Your task to perform on an android device: Go to sound settings Image 0: 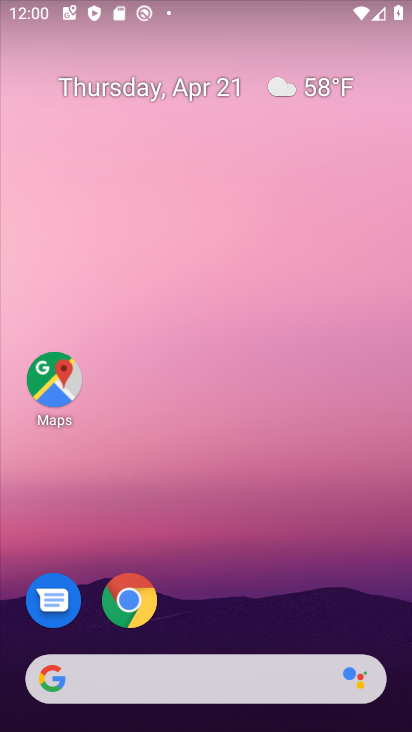
Step 0: drag from (200, 642) to (171, 47)
Your task to perform on an android device: Go to sound settings Image 1: 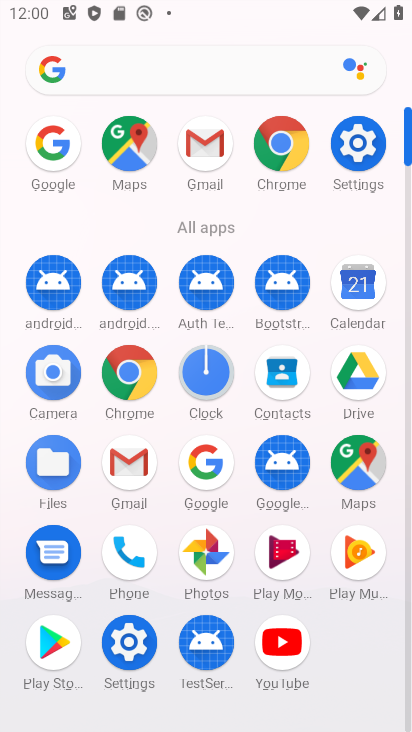
Step 1: click (349, 148)
Your task to perform on an android device: Go to sound settings Image 2: 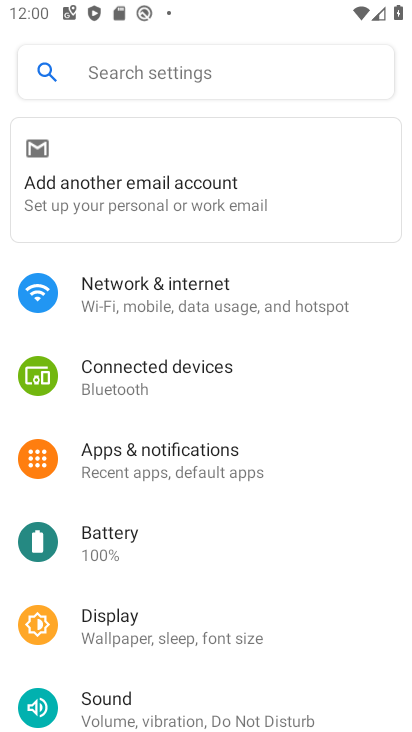
Step 2: click (150, 707)
Your task to perform on an android device: Go to sound settings Image 3: 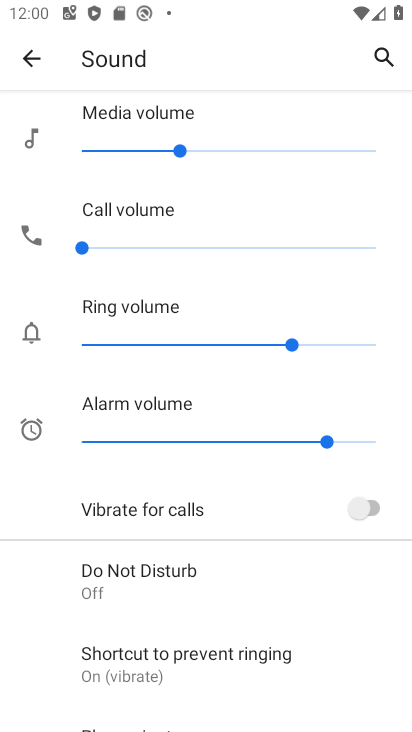
Step 3: drag from (198, 621) to (132, 187)
Your task to perform on an android device: Go to sound settings Image 4: 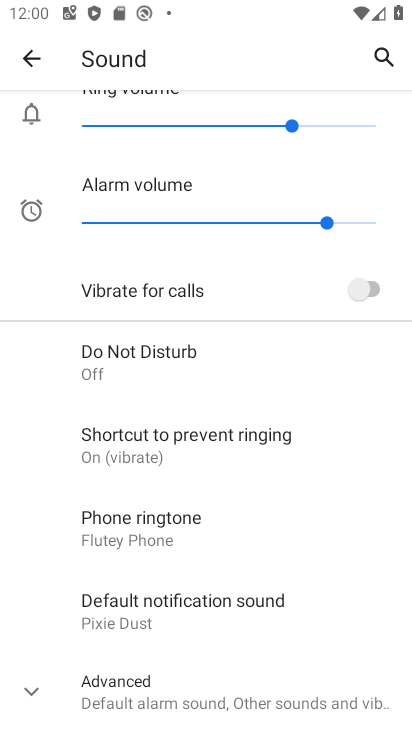
Step 4: drag from (234, 453) to (185, 155)
Your task to perform on an android device: Go to sound settings Image 5: 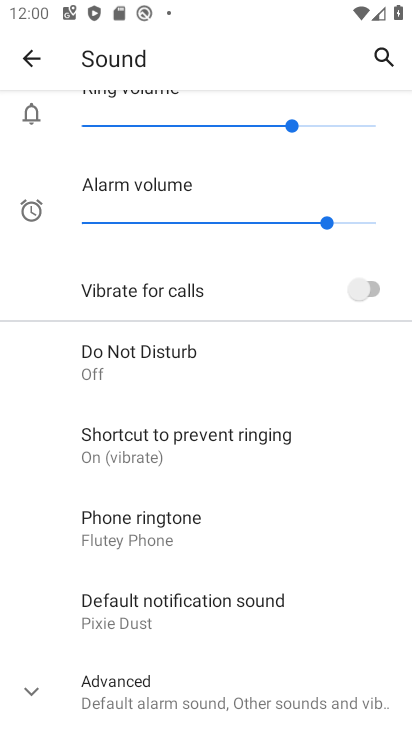
Step 5: click (168, 686)
Your task to perform on an android device: Go to sound settings Image 6: 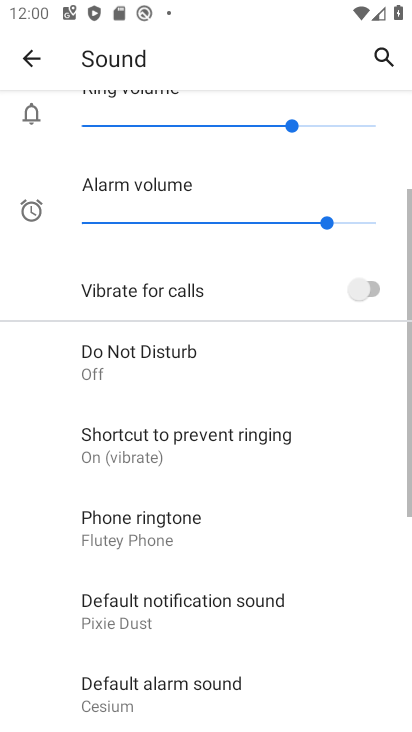
Step 6: task complete